Your task to perform on an android device: Search for seafood restaurants on Google Maps Image 0: 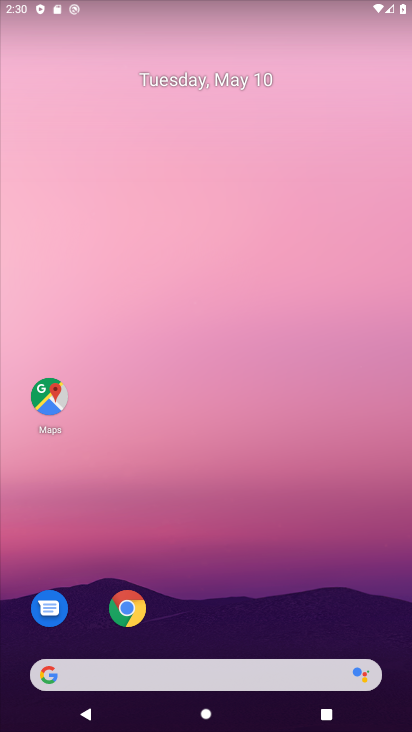
Step 0: drag from (205, 624) to (339, 15)
Your task to perform on an android device: Search for seafood restaurants on Google Maps Image 1: 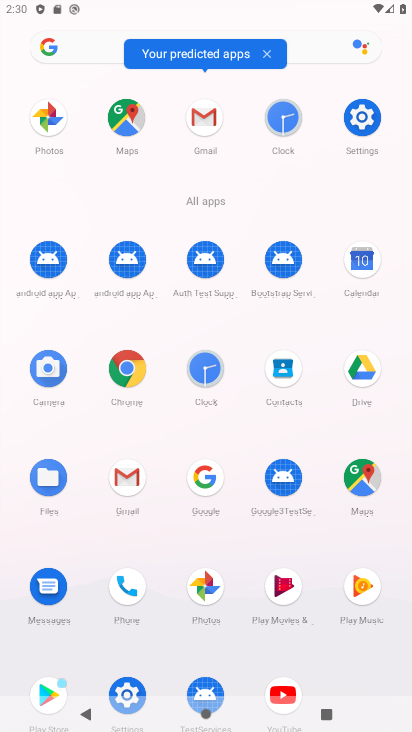
Step 1: click (368, 486)
Your task to perform on an android device: Search for seafood restaurants on Google Maps Image 2: 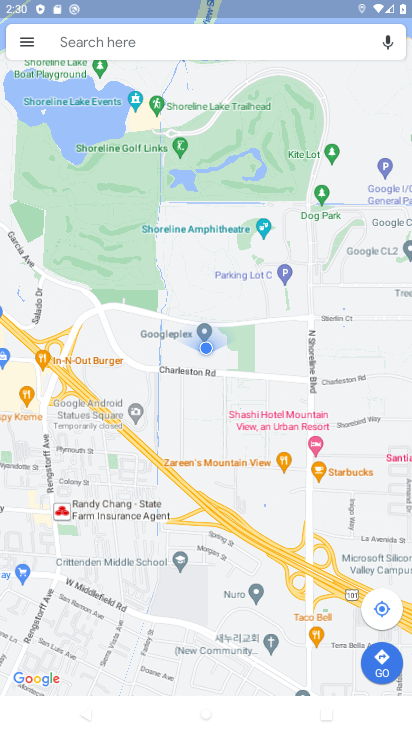
Step 2: click (157, 33)
Your task to perform on an android device: Search for seafood restaurants on Google Maps Image 3: 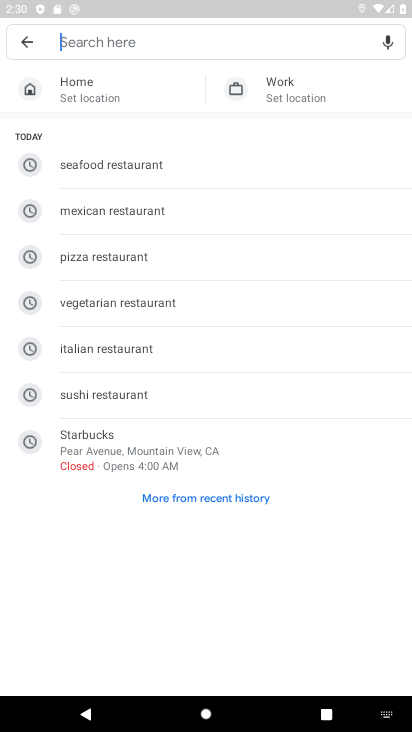
Step 3: type "seafood restaurants"
Your task to perform on an android device: Search for seafood restaurants on Google Maps Image 4: 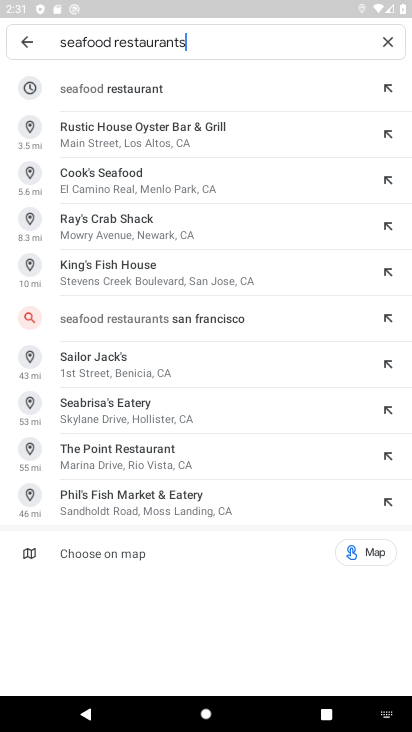
Step 4: click (179, 88)
Your task to perform on an android device: Search for seafood restaurants on Google Maps Image 5: 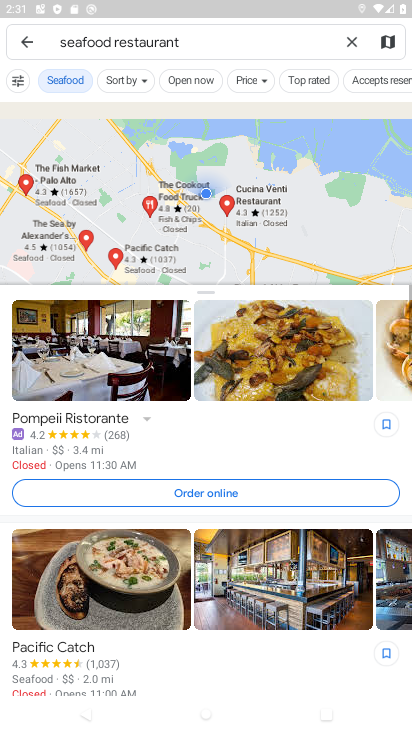
Step 5: task complete